Your task to perform on an android device: Show me popular games on the Play Store Image 0: 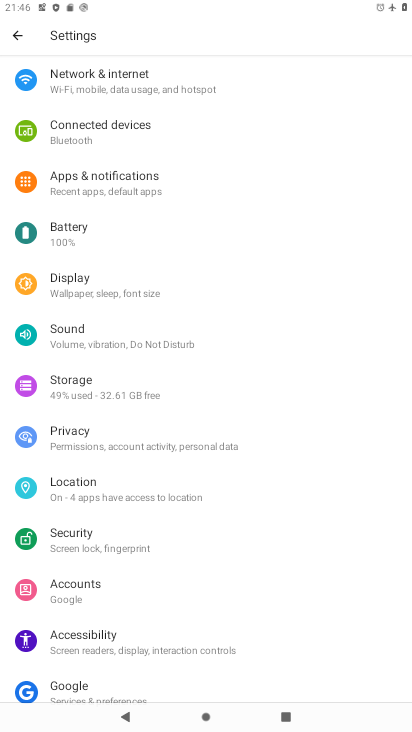
Step 0: press home button
Your task to perform on an android device: Show me popular games on the Play Store Image 1: 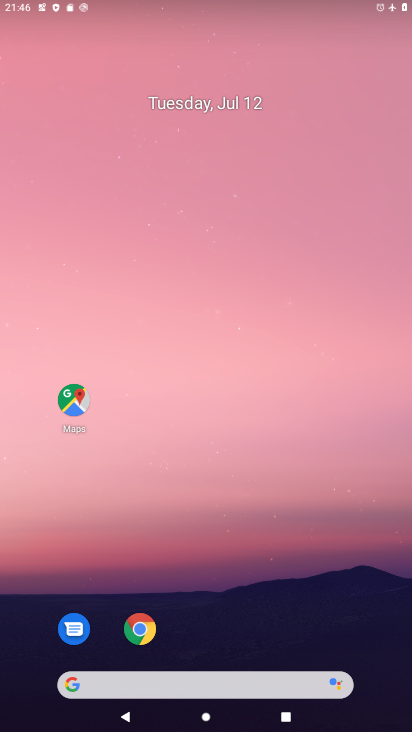
Step 1: click (251, 238)
Your task to perform on an android device: Show me popular games on the Play Store Image 2: 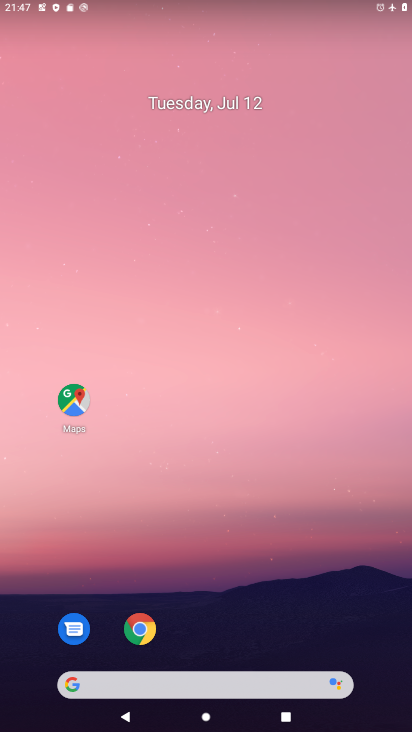
Step 2: drag from (231, 614) to (215, 135)
Your task to perform on an android device: Show me popular games on the Play Store Image 3: 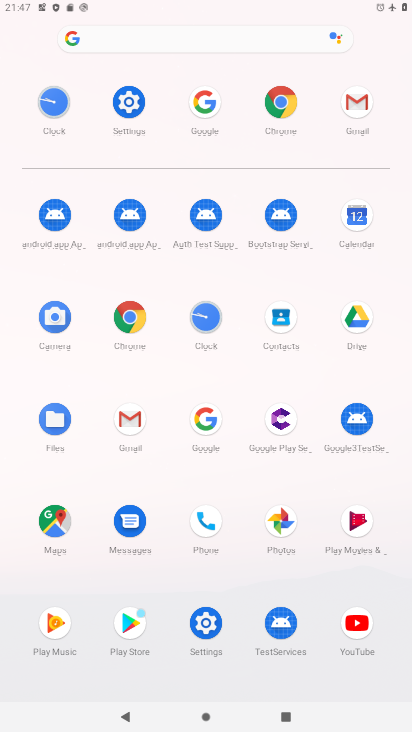
Step 3: click (137, 610)
Your task to perform on an android device: Show me popular games on the Play Store Image 4: 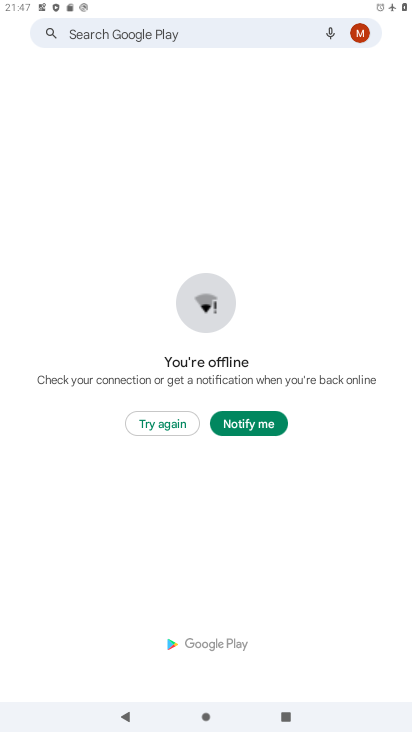
Step 4: click (162, 417)
Your task to perform on an android device: Show me popular games on the Play Store Image 5: 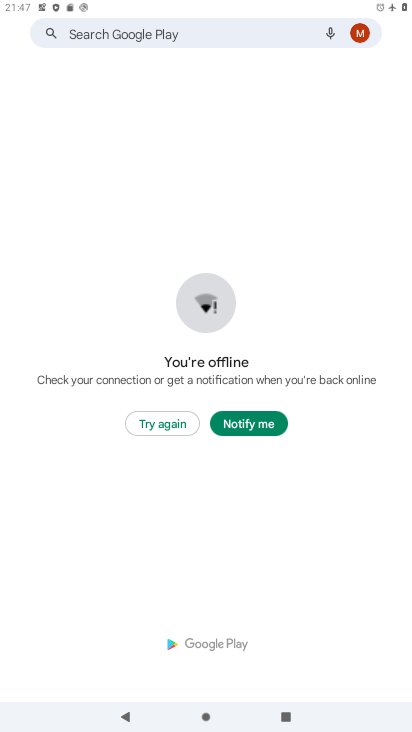
Step 5: click (162, 417)
Your task to perform on an android device: Show me popular games on the Play Store Image 6: 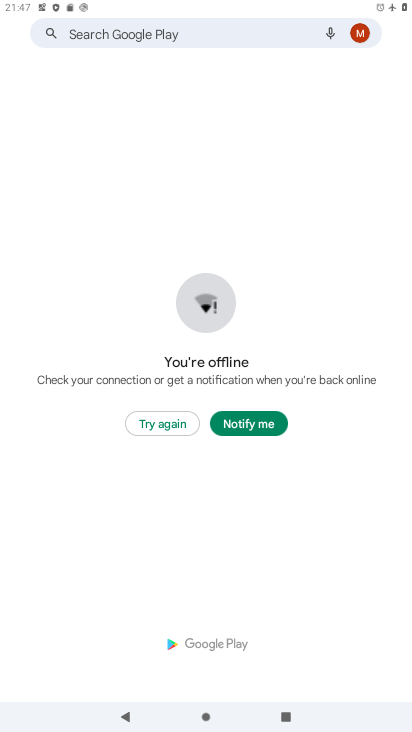
Step 6: click (162, 417)
Your task to perform on an android device: Show me popular games on the Play Store Image 7: 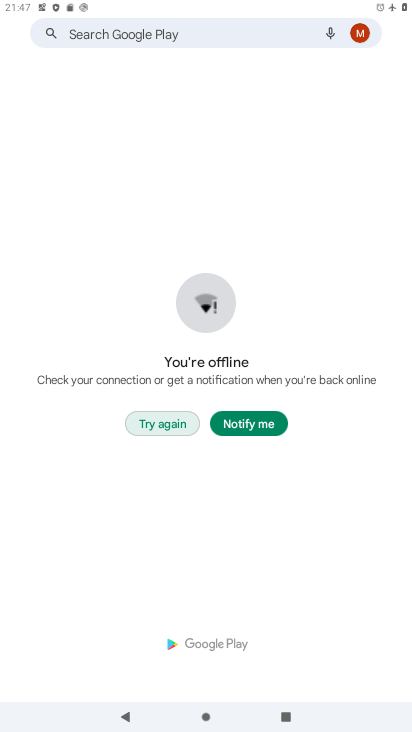
Step 7: click (162, 417)
Your task to perform on an android device: Show me popular games on the Play Store Image 8: 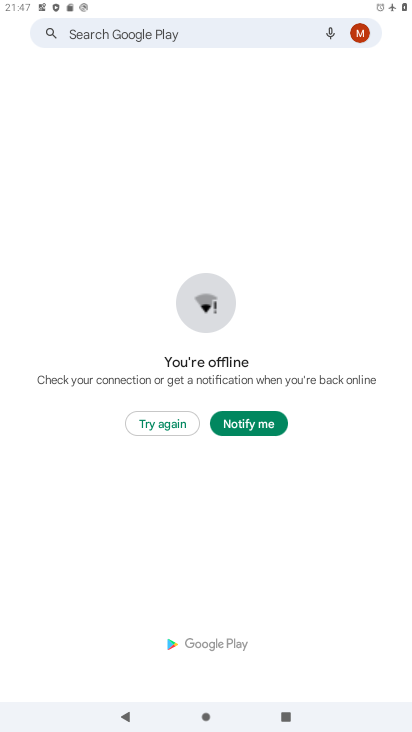
Step 8: click (162, 417)
Your task to perform on an android device: Show me popular games on the Play Store Image 9: 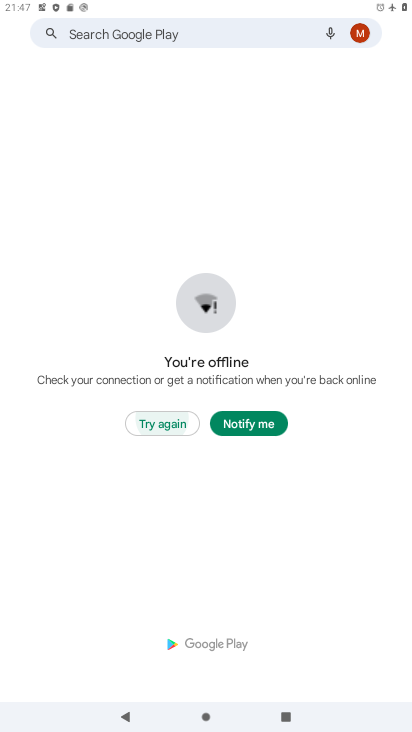
Step 9: click (162, 417)
Your task to perform on an android device: Show me popular games on the Play Store Image 10: 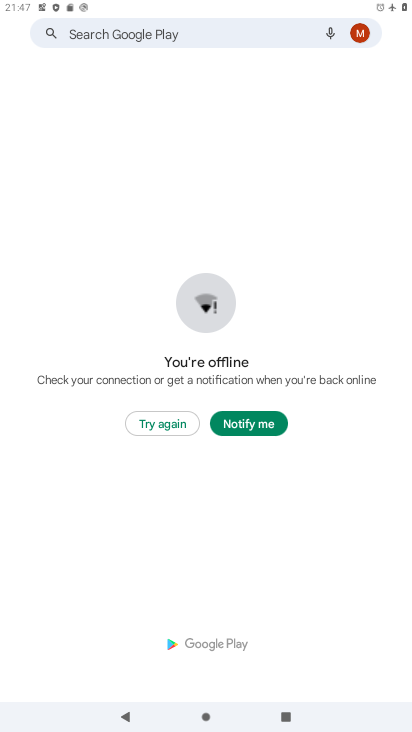
Step 10: click (162, 417)
Your task to perform on an android device: Show me popular games on the Play Store Image 11: 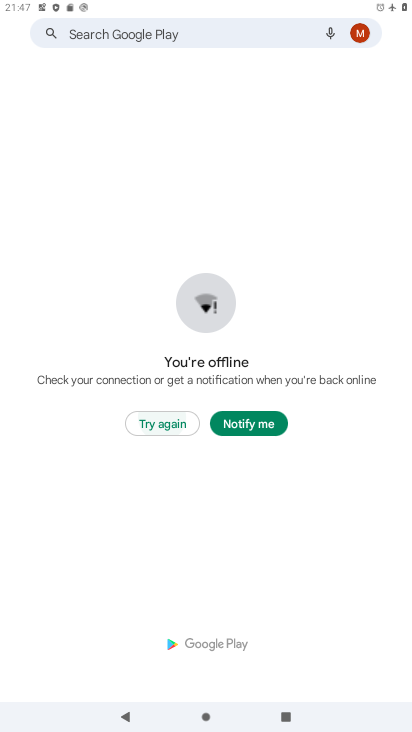
Step 11: click (162, 417)
Your task to perform on an android device: Show me popular games on the Play Store Image 12: 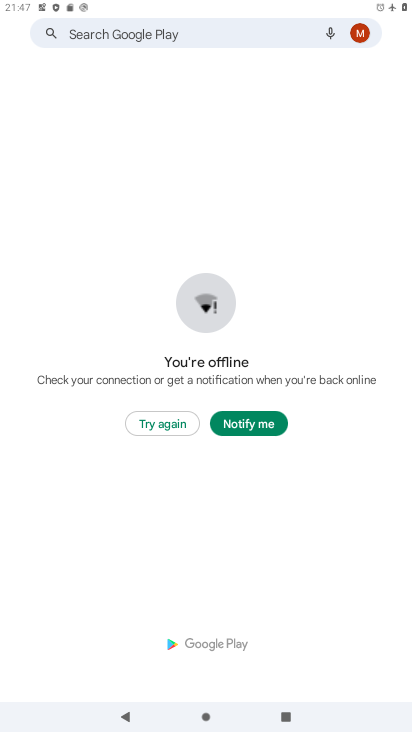
Step 12: task complete